Your task to perform on an android device: Open settings on Google Maps Image 0: 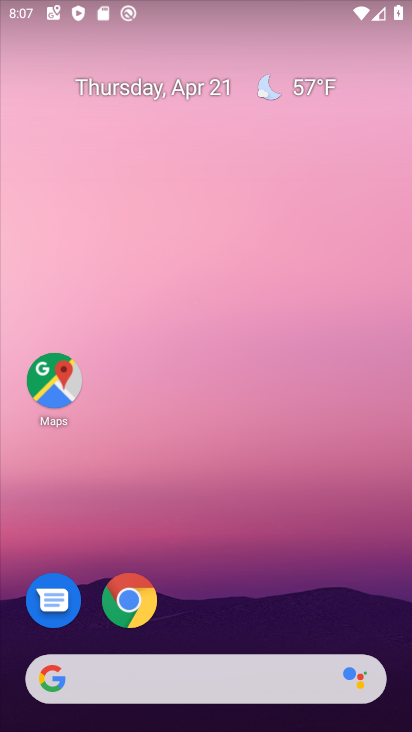
Step 0: drag from (223, 607) to (147, 291)
Your task to perform on an android device: Open settings on Google Maps Image 1: 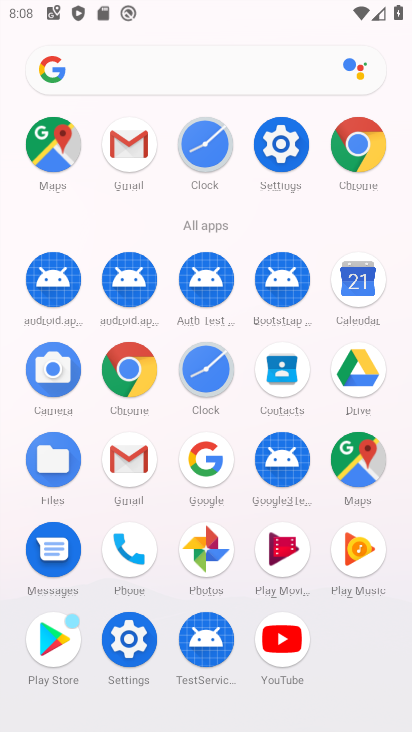
Step 1: click (289, 148)
Your task to perform on an android device: Open settings on Google Maps Image 2: 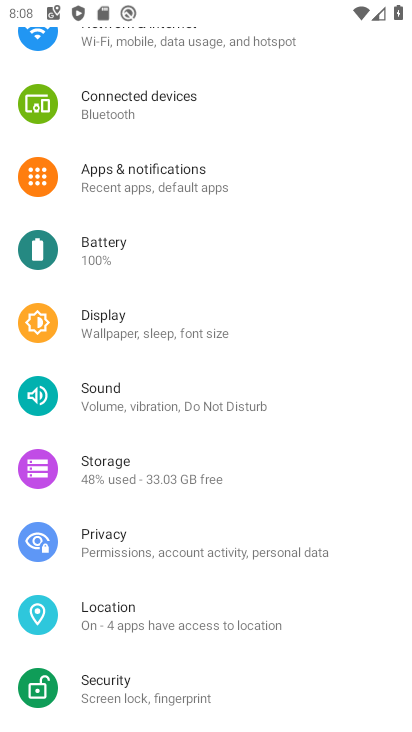
Step 2: drag from (242, 233) to (211, 538)
Your task to perform on an android device: Open settings on Google Maps Image 3: 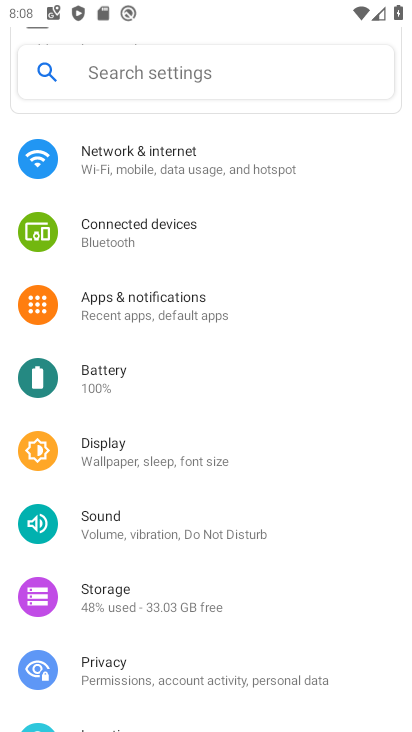
Step 3: drag from (239, 610) to (209, 256)
Your task to perform on an android device: Open settings on Google Maps Image 4: 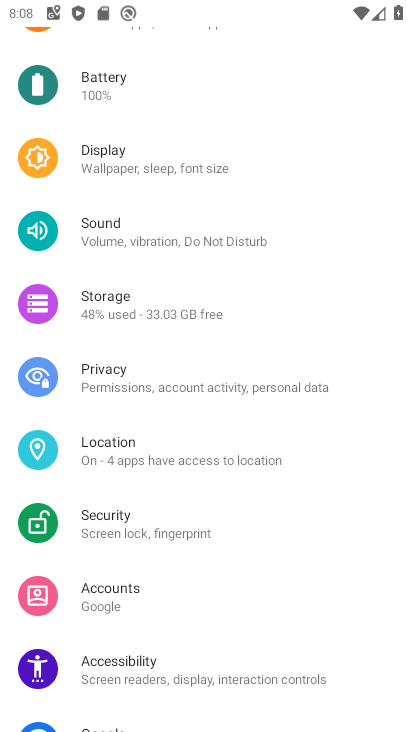
Step 4: drag from (208, 221) to (151, 532)
Your task to perform on an android device: Open settings on Google Maps Image 5: 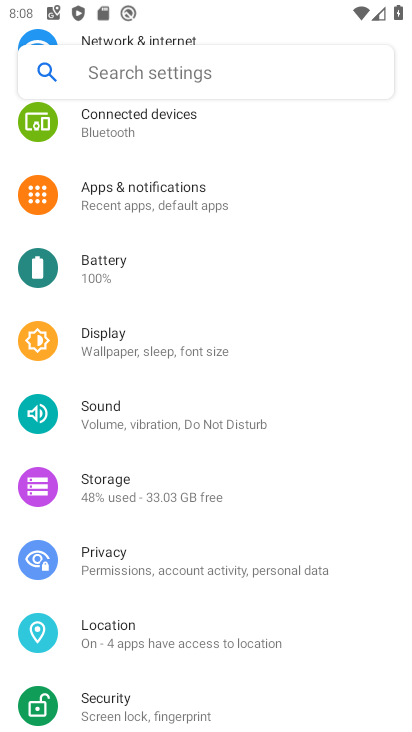
Step 5: drag from (210, 293) to (171, 555)
Your task to perform on an android device: Open settings on Google Maps Image 6: 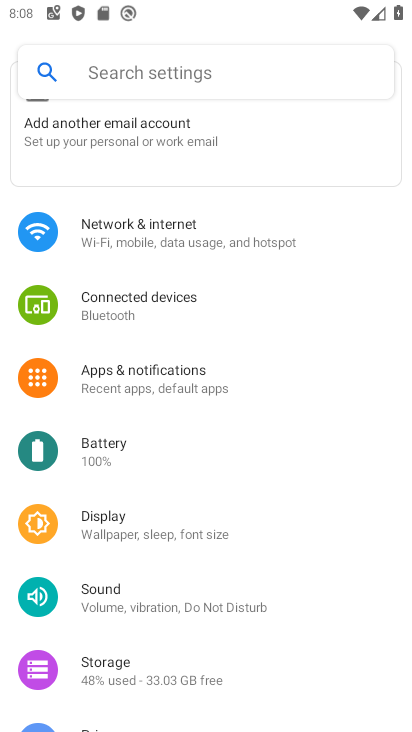
Step 6: press back button
Your task to perform on an android device: Open settings on Google Maps Image 7: 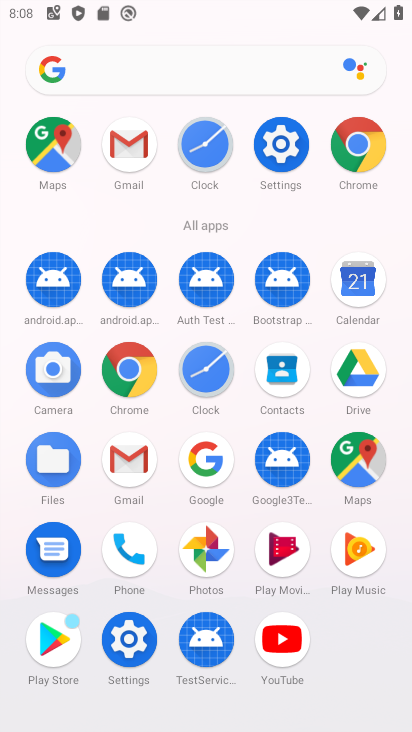
Step 7: click (62, 169)
Your task to perform on an android device: Open settings on Google Maps Image 8: 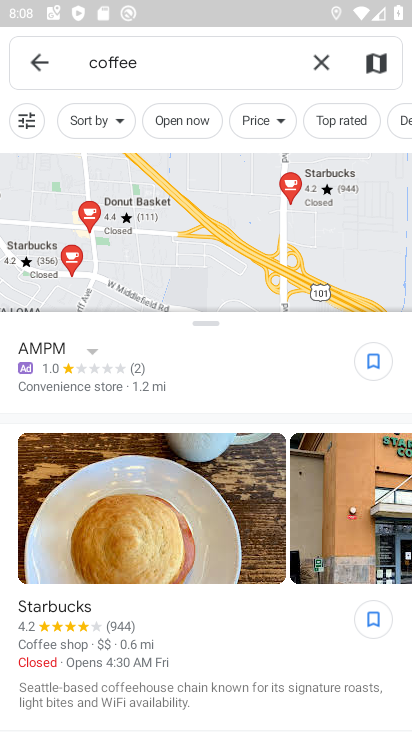
Step 8: click (37, 68)
Your task to perform on an android device: Open settings on Google Maps Image 9: 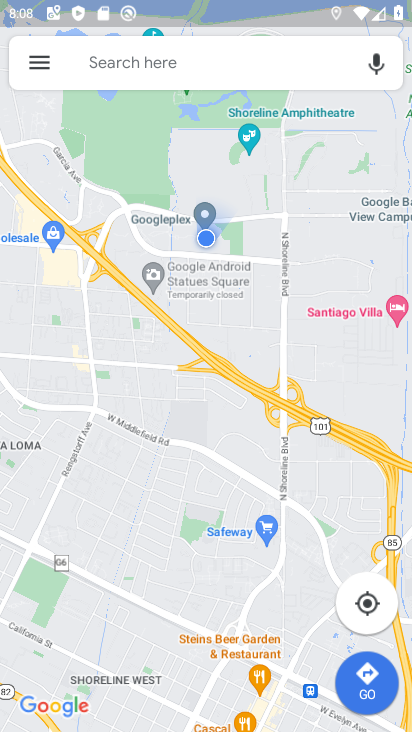
Step 9: click (37, 68)
Your task to perform on an android device: Open settings on Google Maps Image 10: 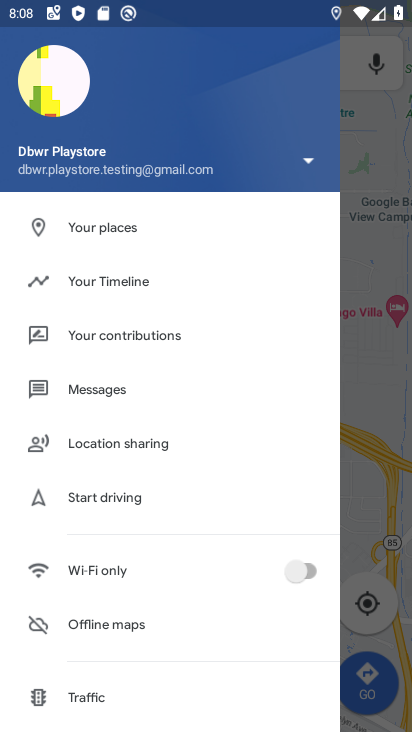
Step 10: drag from (125, 663) to (132, 392)
Your task to perform on an android device: Open settings on Google Maps Image 11: 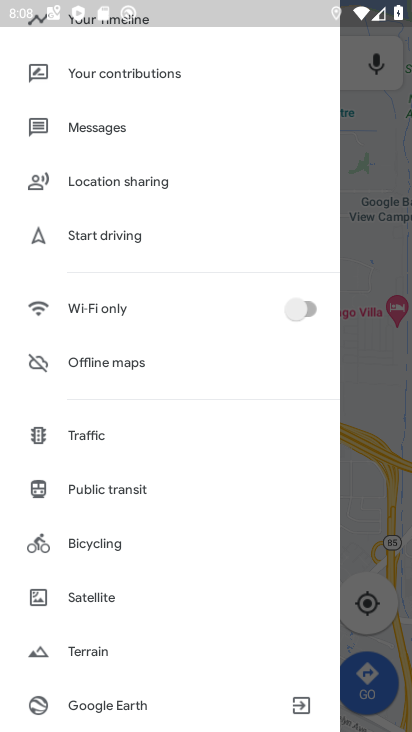
Step 11: drag from (113, 684) to (137, 404)
Your task to perform on an android device: Open settings on Google Maps Image 12: 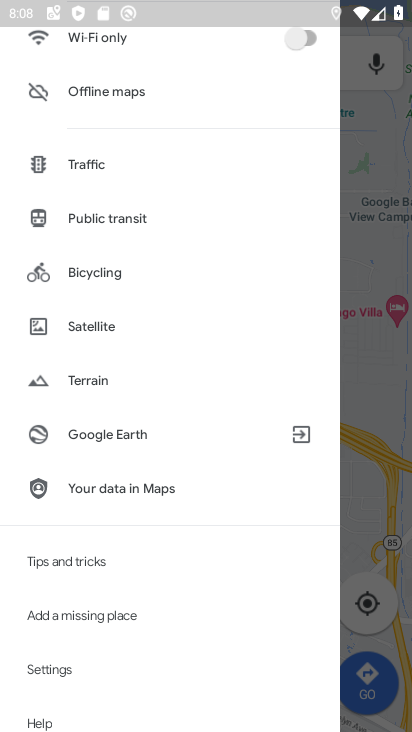
Step 12: click (66, 670)
Your task to perform on an android device: Open settings on Google Maps Image 13: 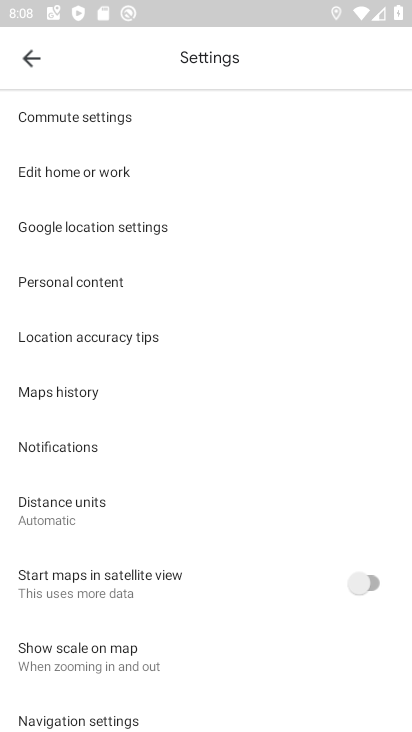
Step 13: task complete